Your task to perform on an android device: Open network settings Image 0: 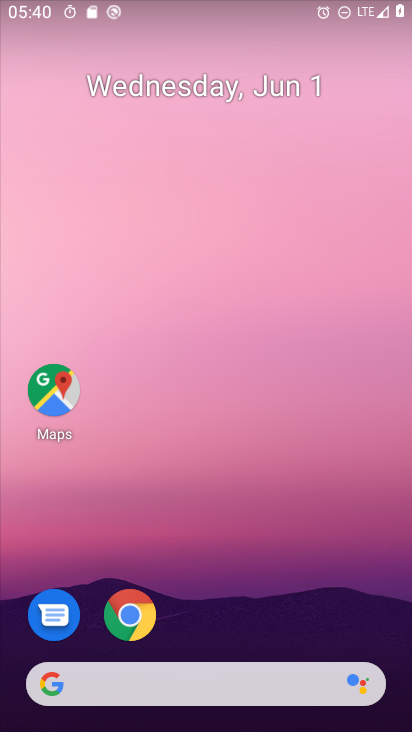
Step 0: drag from (328, 674) to (344, 7)
Your task to perform on an android device: Open network settings Image 1: 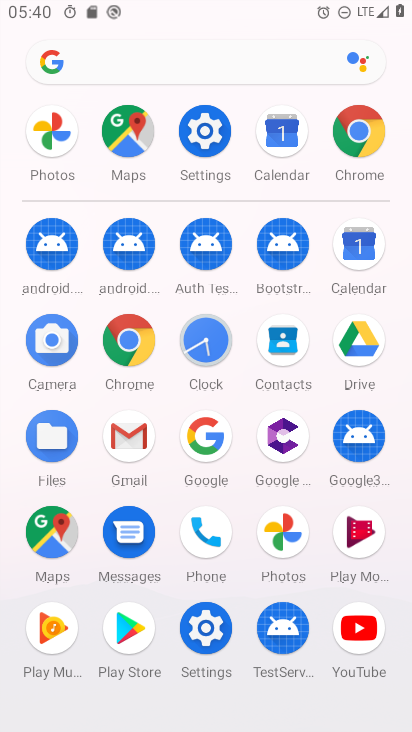
Step 1: click (212, 134)
Your task to perform on an android device: Open network settings Image 2: 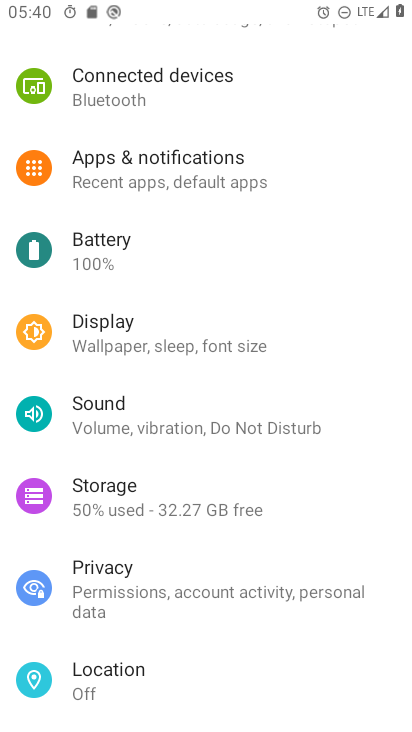
Step 2: drag from (232, 131) to (318, 726)
Your task to perform on an android device: Open network settings Image 3: 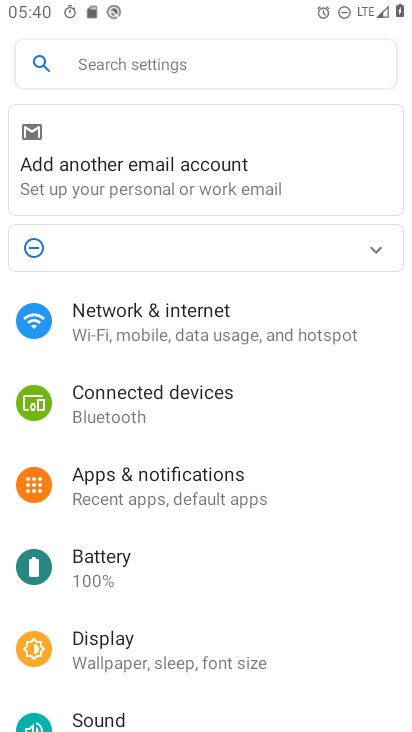
Step 3: click (232, 338)
Your task to perform on an android device: Open network settings Image 4: 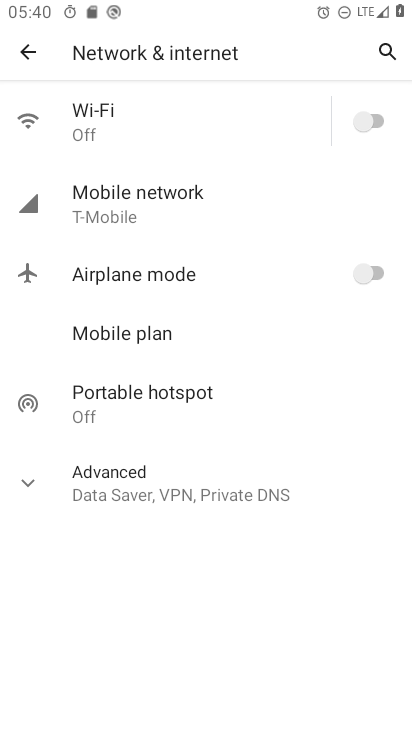
Step 4: task complete